Your task to perform on an android device: open app "McDonald's" (install if not already installed) Image 0: 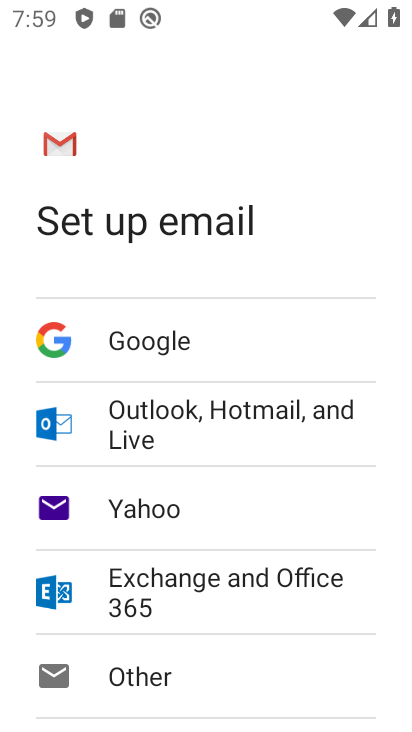
Step 0: press home button
Your task to perform on an android device: open app "McDonald's" (install if not already installed) Image 1: 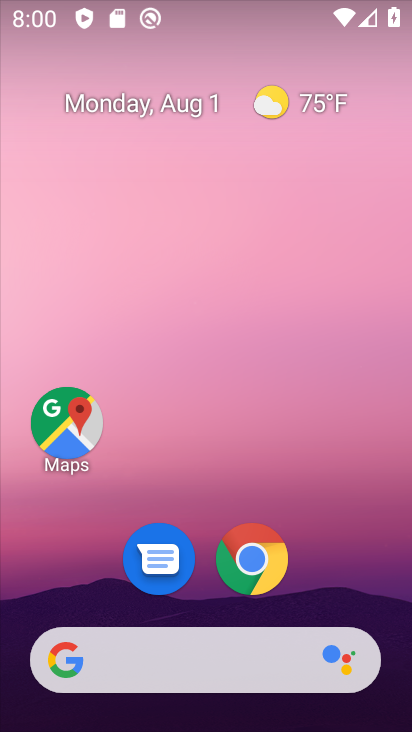
Step 1: drag from (183, 659) to (214, 6)
Your task to perform on an android device: open app "McDonald's" (install if not already installed) Image 2: 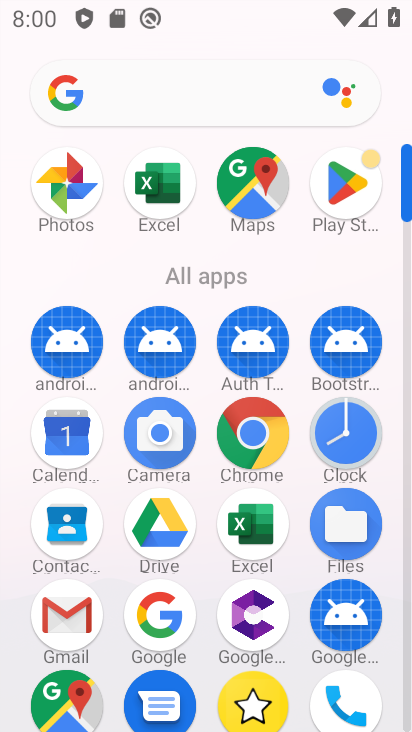
Step 2: click (332, 202)
Your task to perform on an android device: open app "McDonald's" (install if not already installed) Image 3: 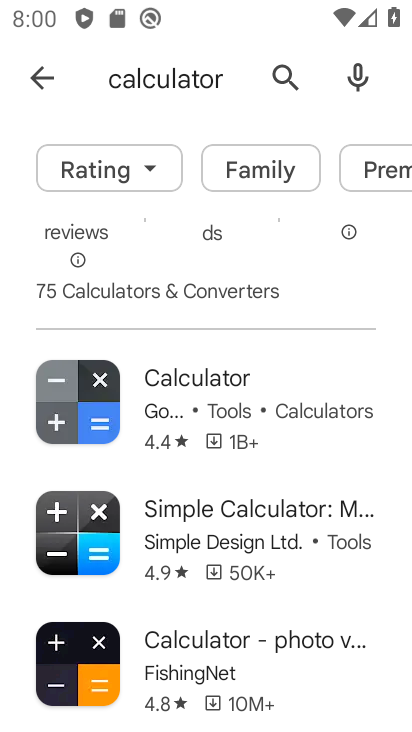
Step 3: click (296, 83)
Your task to perform on an android device: open app "McDonald's" (install if not already installed) Image 4: 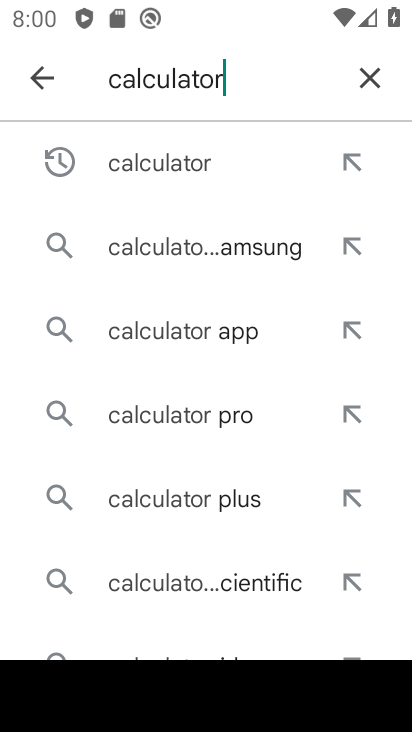
Step 4: click (359, 101)
Your task to perform on an android device: open app "McDonald's" (install if not already installed) Image 5: 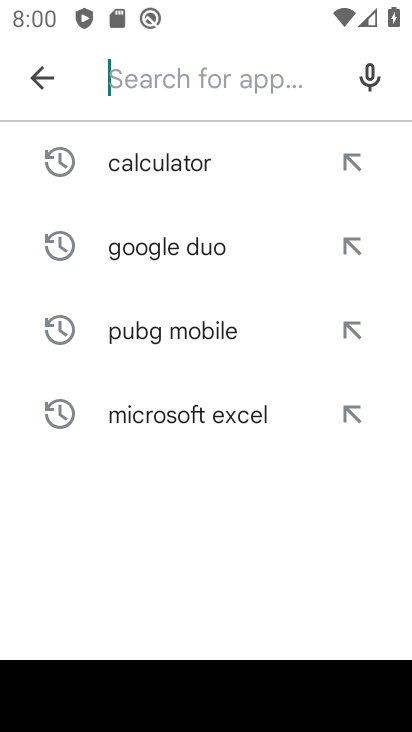
Step 5: type "McDonald's"
Your task to perform on an android device: open app "McDonald's" (install if not already installed) Image 6: 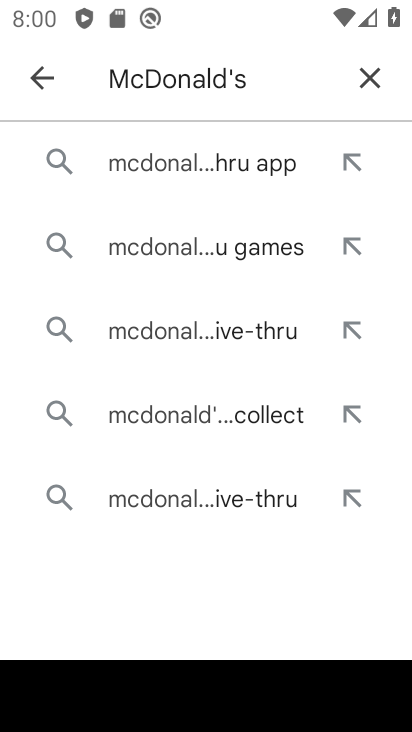
Step 6: click (190, 164)
Your task to perform on an android device: open app "McDonald's" (install if not already installed) Image 7: 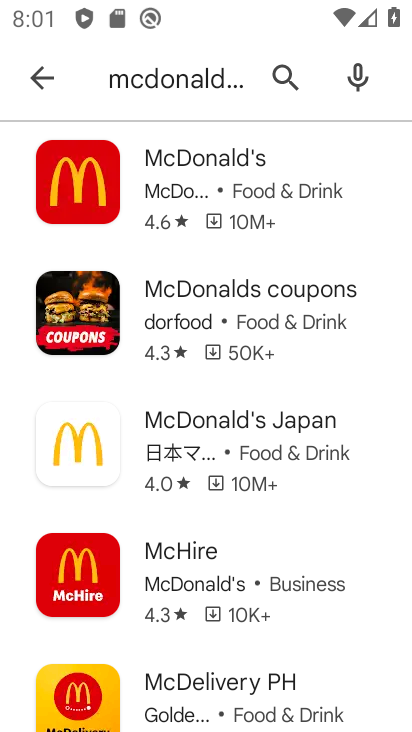
Step 7: click (141, 166)
Your task to perform on an android device: open app "McDonald's" (install if not already installed) Image 8: 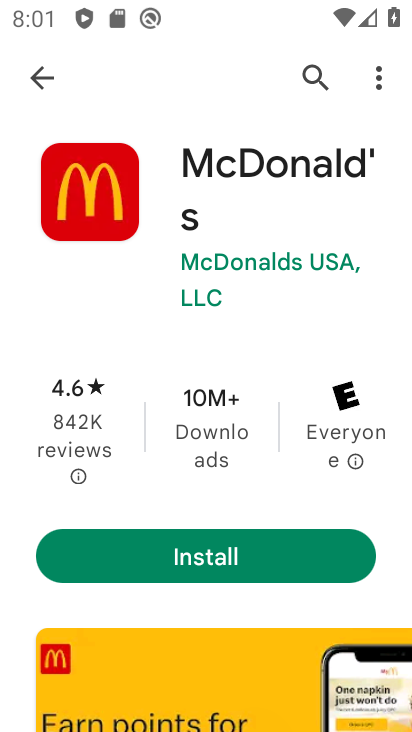
Step 8: click (220, 559)
Your task to perform on an android device: open app "McDonald's" (install if not already installed) Image 9: 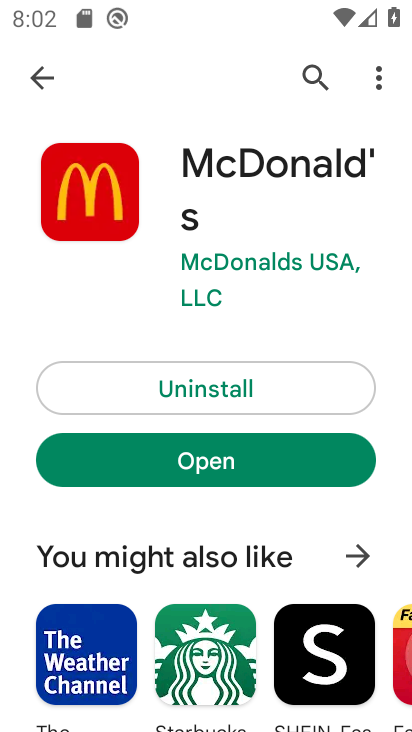
Step 9: click (311, 455)
Your task to perform on an android device: open app "McDonald's" (install if not already installed) Image 10: 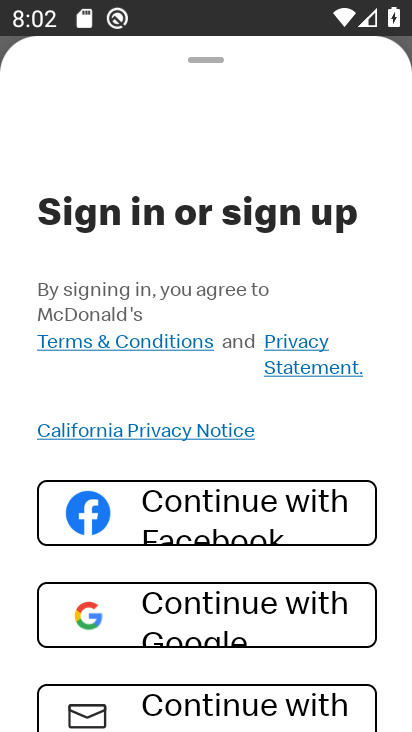
Step 10: task complete